Your task to perform on an android device: delete browsing data in the chrome app Image 0: 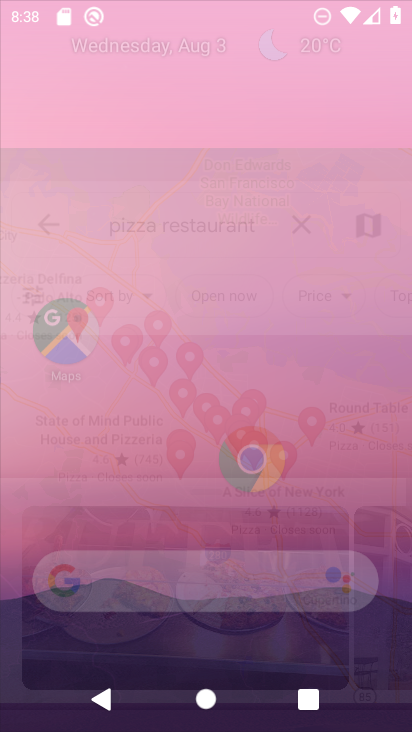
Step 0: drag from (204, 476) to (204, 46)
Your task to perform on an android device: delete browsing data in the chrome app Image 1: 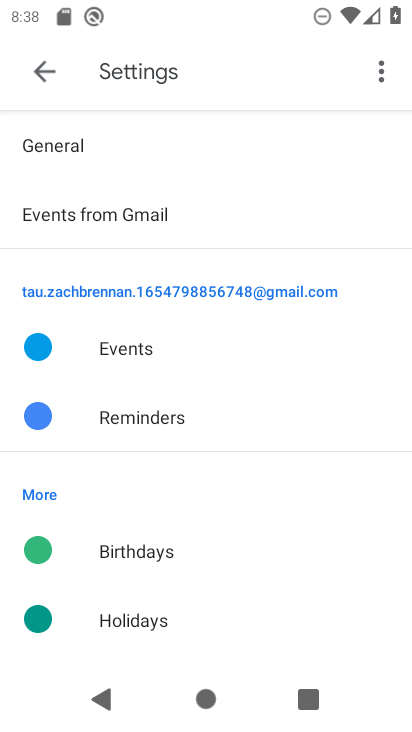
Step 1: press home button
Your task to perform on an android device: delete browsing data in the chrome app Image 2: 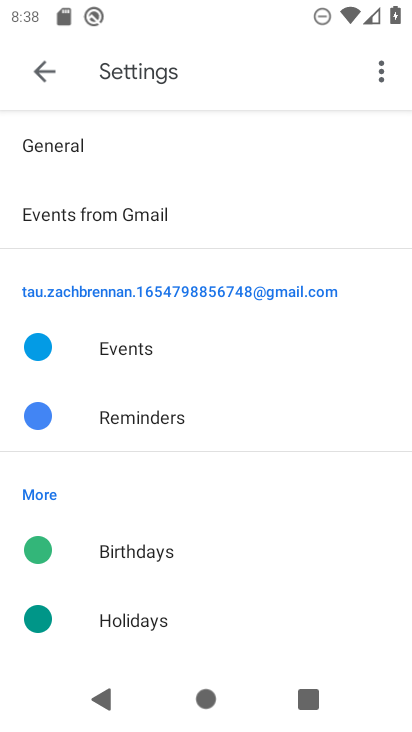
Step 2: drag from (204, 46) to (357, 584)
Your task to perform on an android device: delete browsing data in the chrome app Image 3: 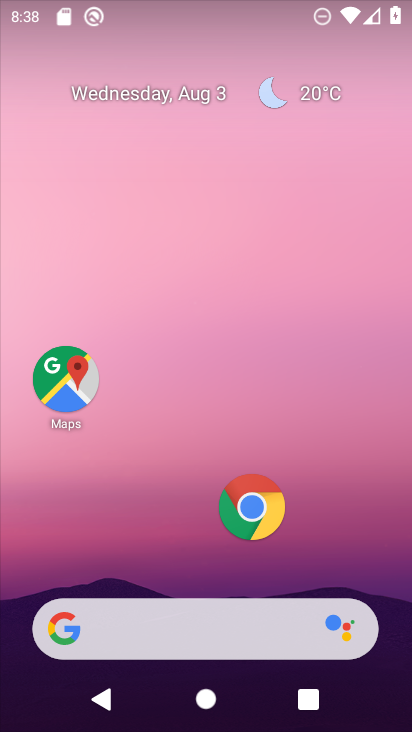
Step 3: click (254, 513)
Your task to perform on an android device: delete browsing data in the chrome app Image 4: 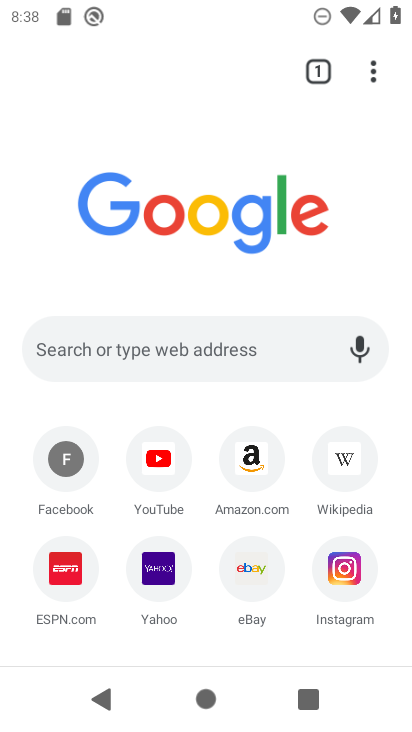
Step 4: click (369, 78)
Your task to perform on an android device: delete browsing data in the chrome app Image 5: 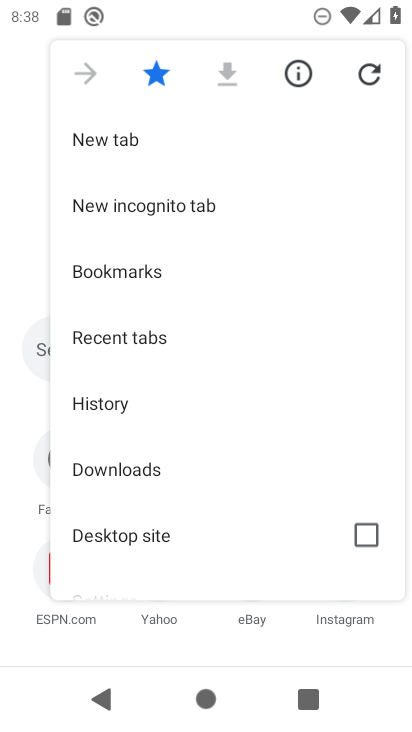
Step 5: click (119, 404)
Your task to perform on an android device: delete browsing data in the chrome app Image 6: 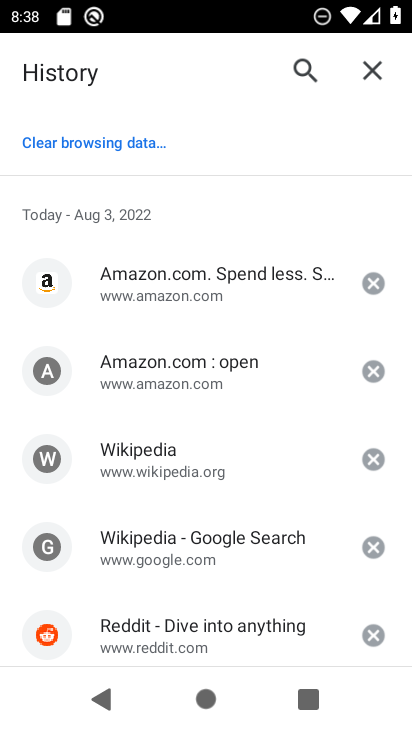
Step 6: click (119, 139)
Your task to perform on an android device: delete browsing data in the chrome app Image 7: 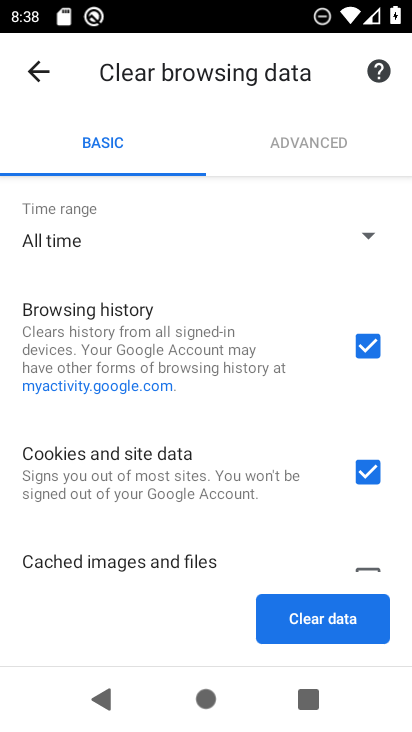
Step 7: click (275, 279)
Your task to perform on an android device: delete browsing data in the chrome app Image 8: 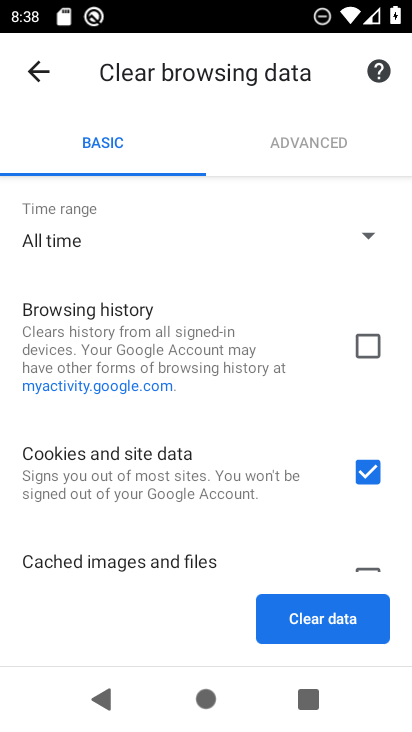
Step 8: click (361, 347)
Your task to perform on an android device: delete browsing data in the chrome app Image 9: 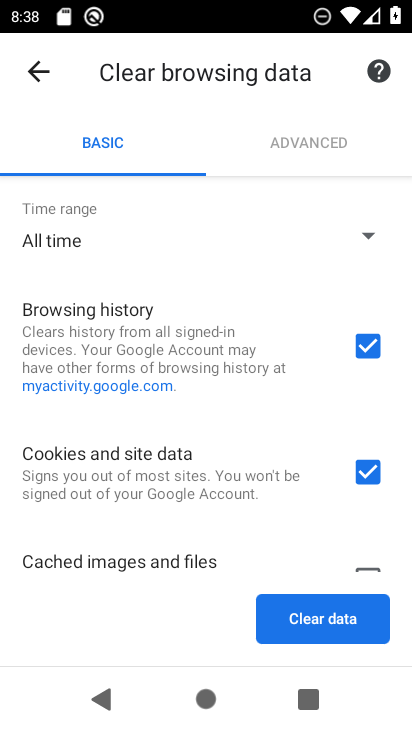
Step 9: drag from (119, 400) to (129, 275)
Your task to perform on an android device: delete browsing data in the chrome app Image 10: 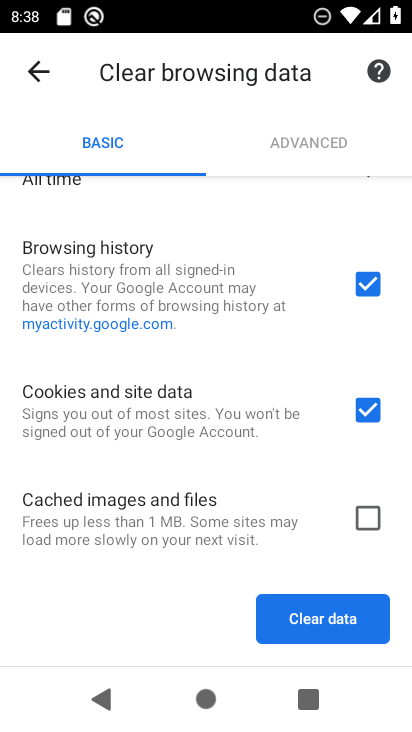
Step 10: click (371, 525)
Your task to perform on an android device: delete browsing data in the chrome app Image 11: 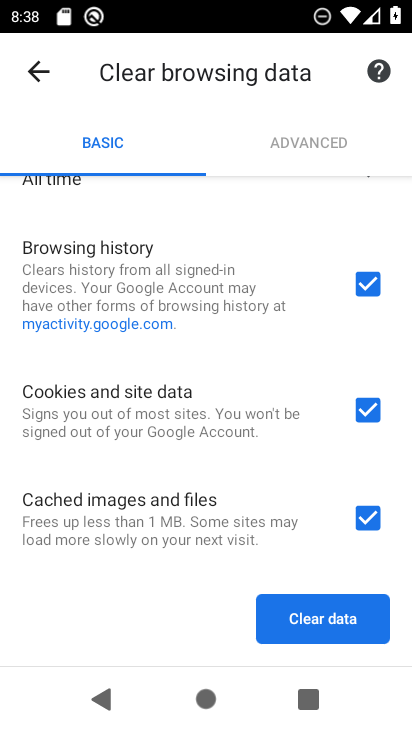
Step 11: click (297, 613)
Your task to perform on an android device: delete browsing data in the chrome app Image 12: 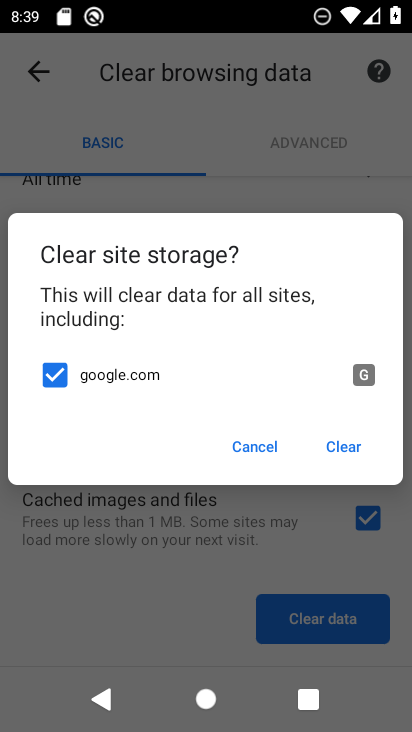
Step 12: click (347, 442)
Your task to perform on an android device: delete browsing data in the chrome app Image 13: 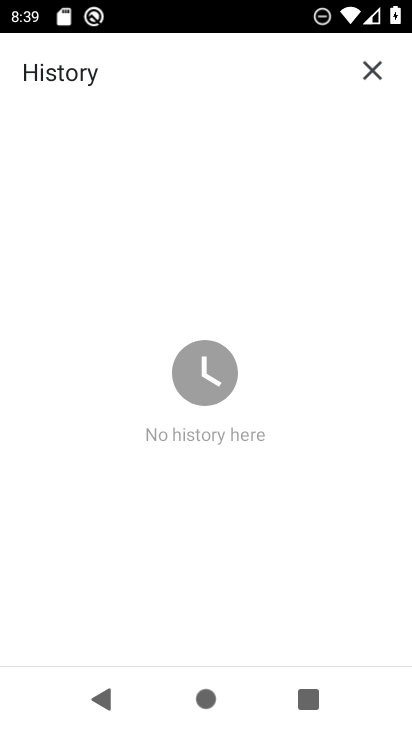
Step 13: task complete